Your task to perform on an android device: Search for the best books on Goodreads Image 0: 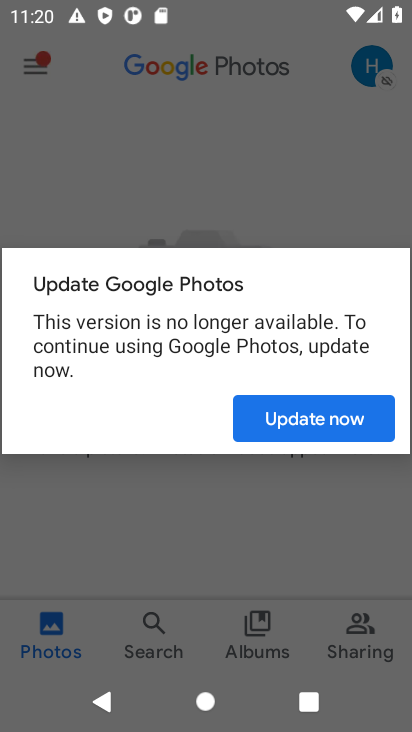
Step 0: press home button
Your task to perform on an android device: Search for the best books on Goodreads Image 1: 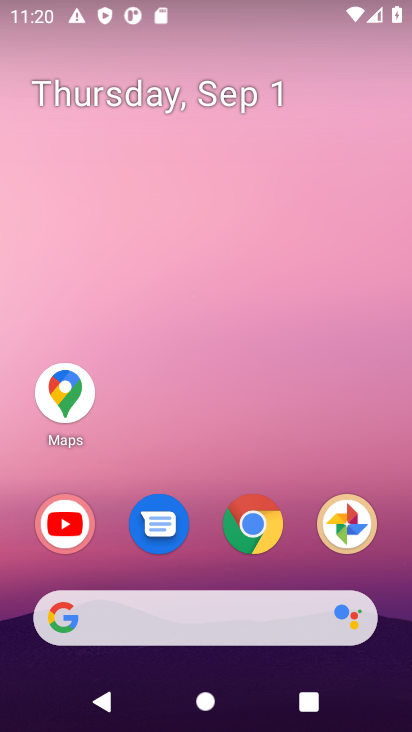
Step 1: click (255, 524)
Your task to perform on an android device: Search for the best books on Goodreads Image 2: 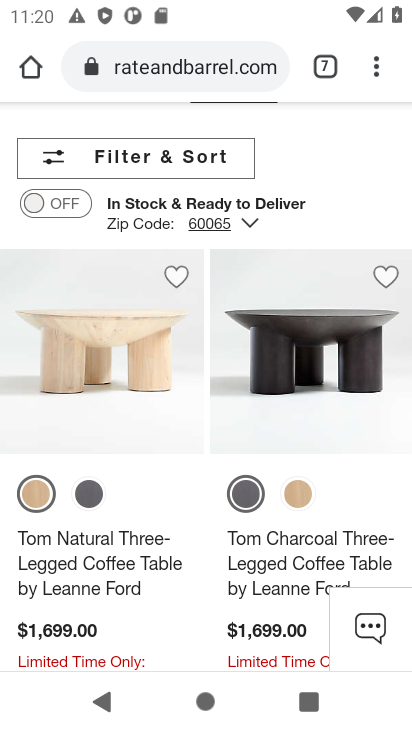
Step 2: click (326, 69)
Your task to perform on an android device: Search for the best books on Goodreads Image 3: 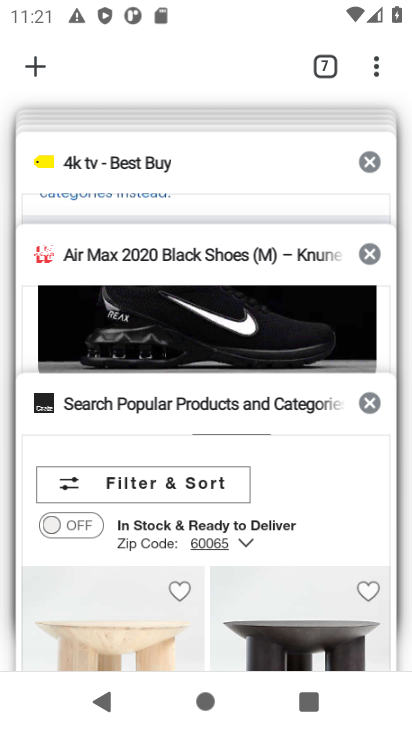
Step 3: click (38, 68)
Your task to perform on an android device: Search for the best books on Goodreads Image 4: 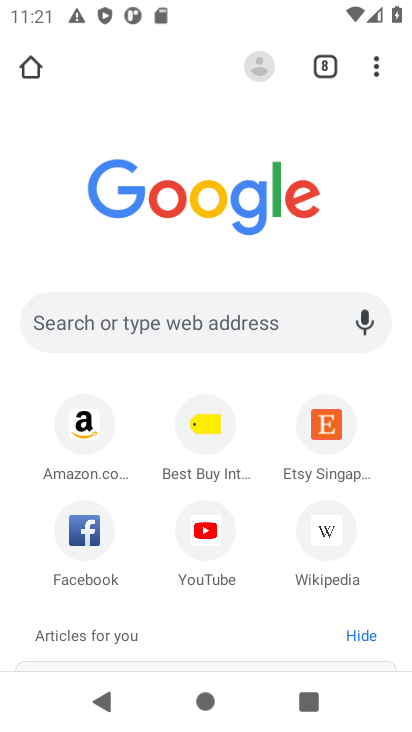
Step 4: click (262, 319)
Your task to perform on an android device: Search for the best books on Goodreads Image 5: 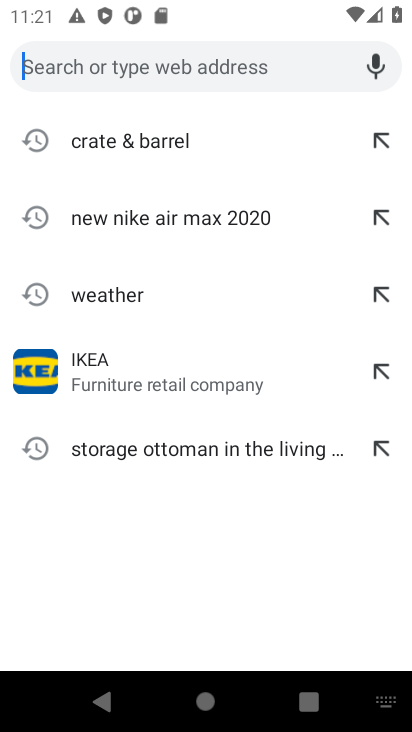
Step 5: type "Goodreads"
Your task to perform on an android device: Search for the best books on Goodreads Image 6: 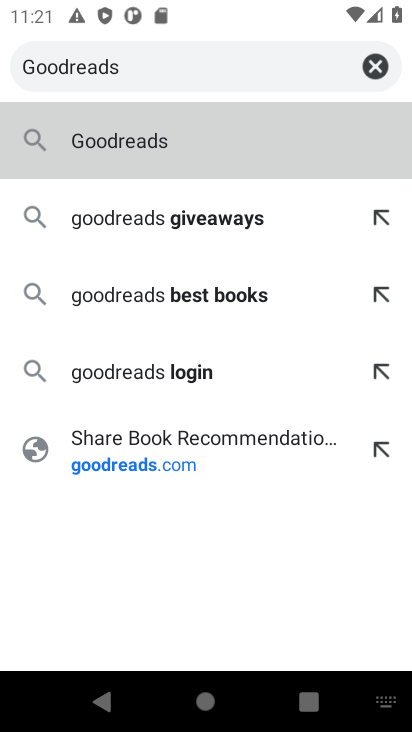
Step 6: click (191, 456)
Your task to perform on an android device: Search for the best books on Goodreads Image 7: 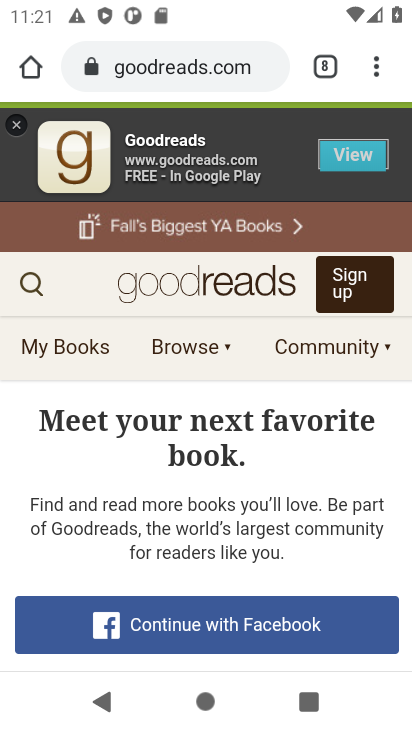
Step 7: click (25, 287)
Your task to perform on an android device: Search for the best books on Goodreads Image 8: 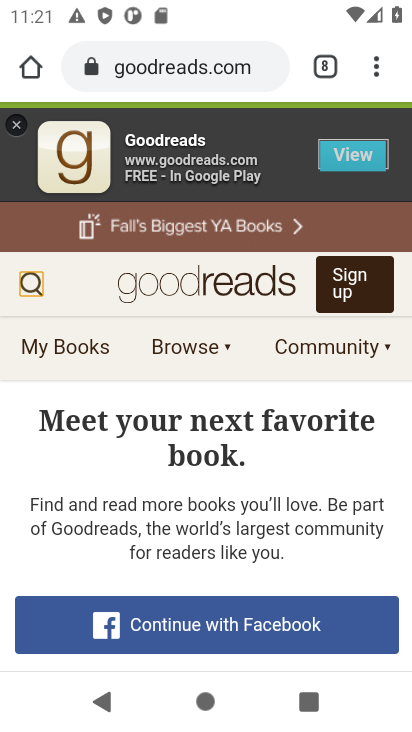
Step 8: click (29, 280)
Your task to perform on an android device: Search for the best books on Goodreads Image 9: 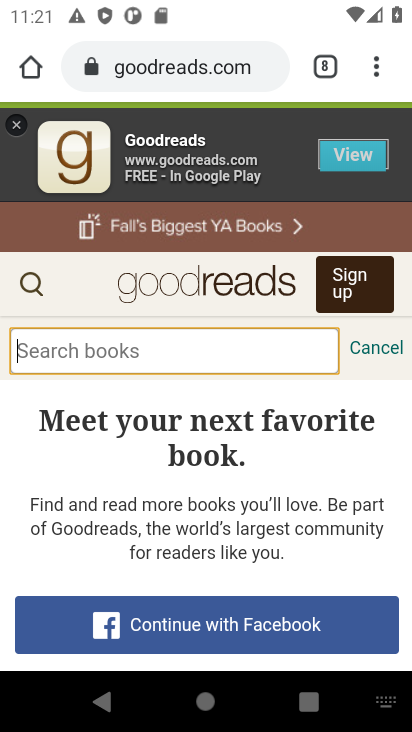
Step 9: click (91, 350)
Your task to perform on an android device: Search for the best books on Goodreads Image 10: 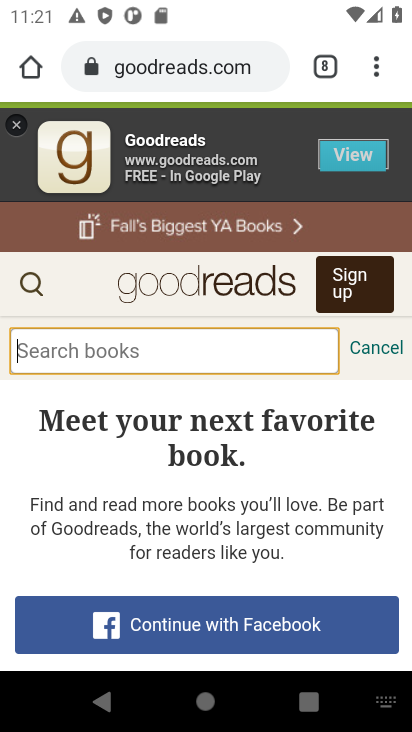
Step 10: type "best books"
Your task to perform on an android device: Search for the best books on Goodreads Image 11: 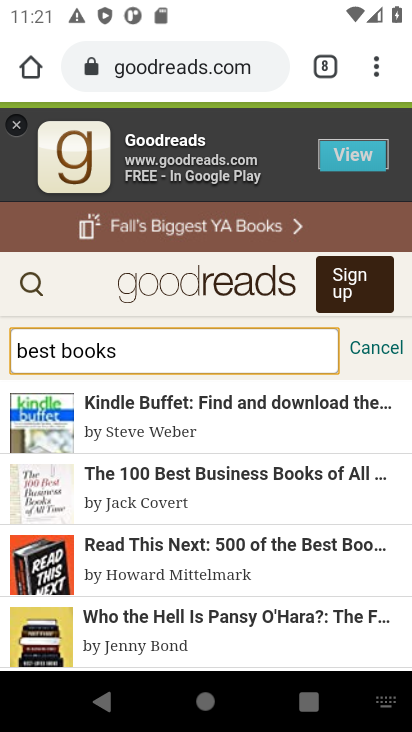
Step 11: drag from (232, 621) to (216, 441)
Your task to perform on an android device: Search for the best books on Goodreads Image 12: 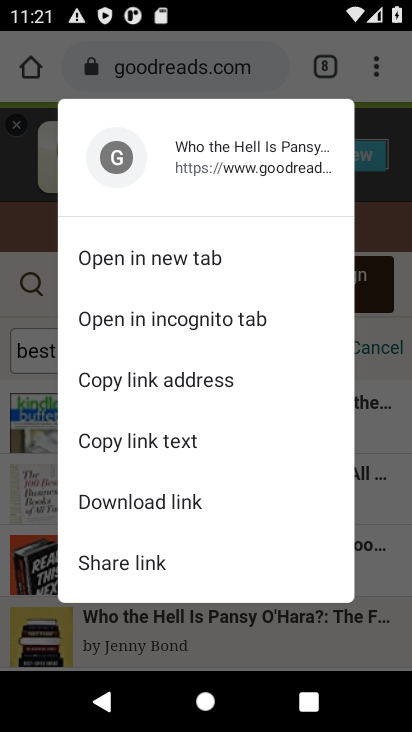
Step 12: click (383, 517)
Your task to perform on an android device: Search for the best books on Goodreads Image 13: 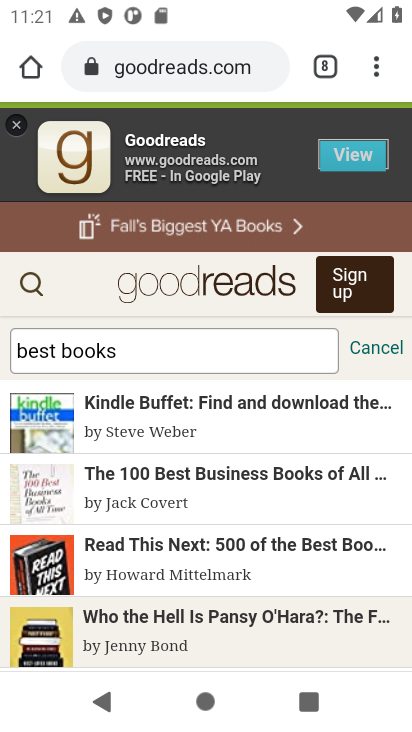
Step 13: task complete